Your task to perform on an android device: change timer sound Image 0: 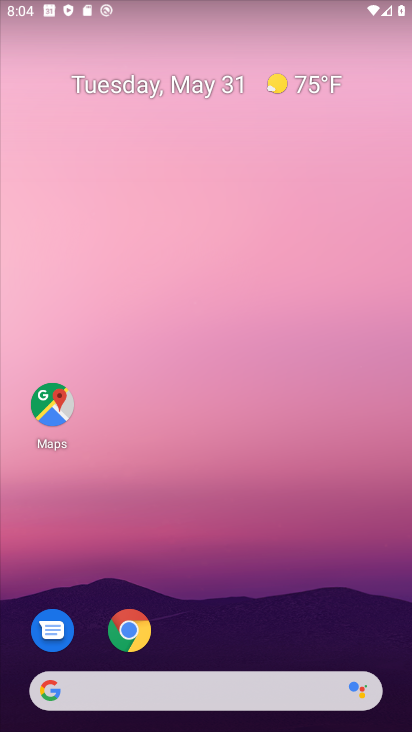
Step 0: drag from (275, 611) to (325, 211)
Your task to perform on an android device: change timer sound Image 1: 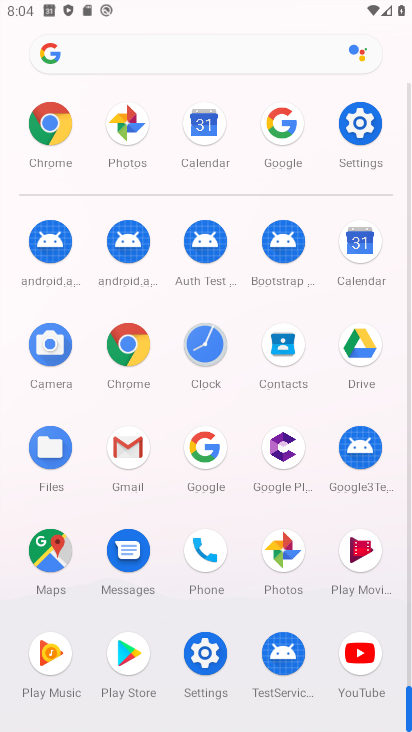
Step 1: click (207, 365)
Your task to perform on an android device: change timer sound Image 2: 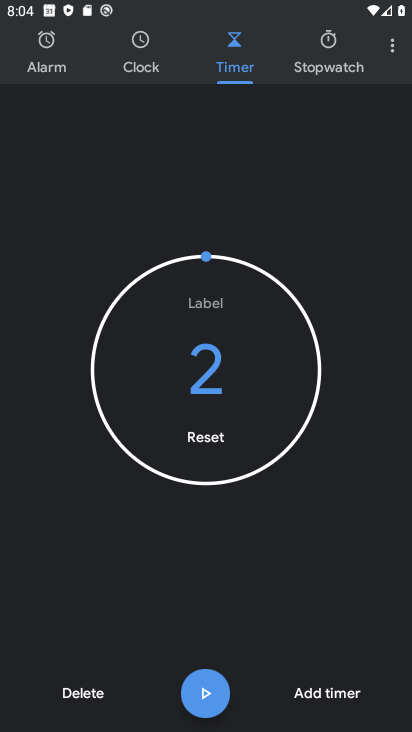
Step 2: click (392, 46)
Your task to perform on an android device: change timer sound Image 3: 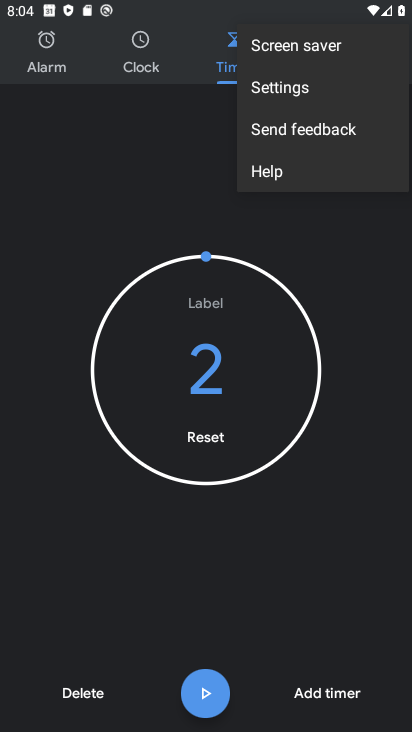
Step 3: click (288, 82)
Your task to perform on an android device: change timer sound Image 4: 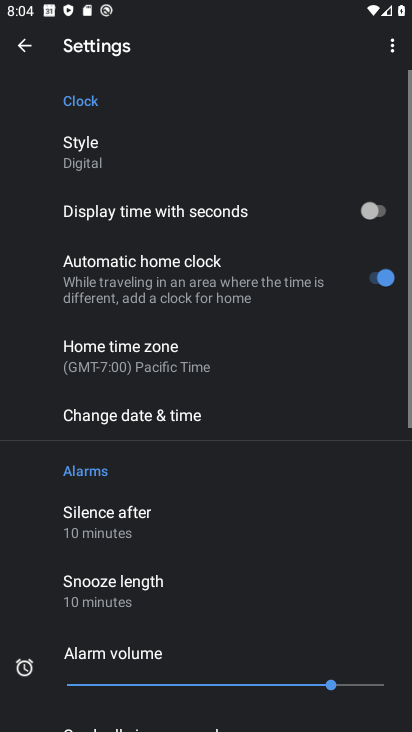
Step 4: drag from (175, 494) to (207, 208)
Your task to perform on an android device: change timer sound Image 5: 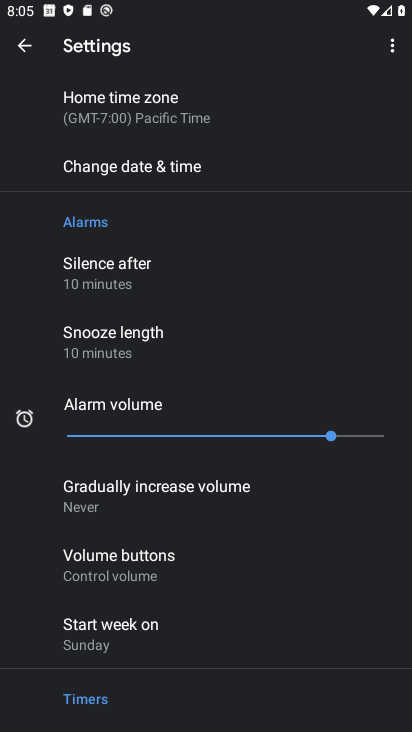
Step 5: drag from (154, 593) to (207, 327)
Your task to perform on an android device: change timer sound Image 6: 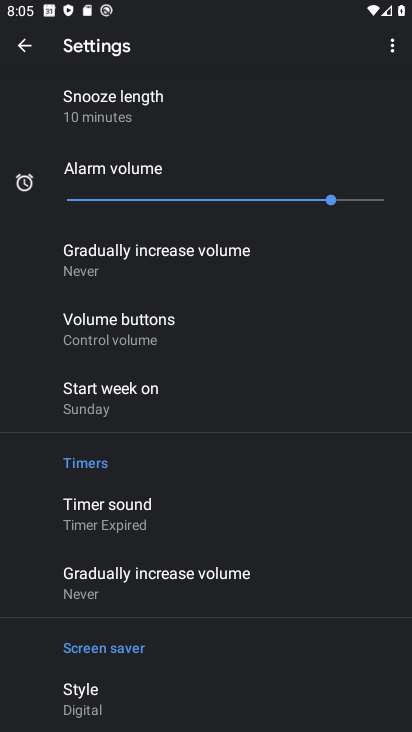
Step 6: click (147, 517)
Your task to perform on an android device: change timer sound Image 7: 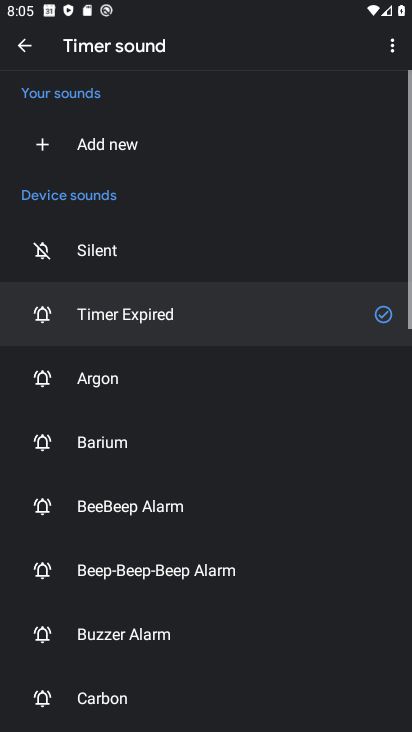
Step 7: click (108, 399)
Your task to perform on an android device: change timer sound Image 8: 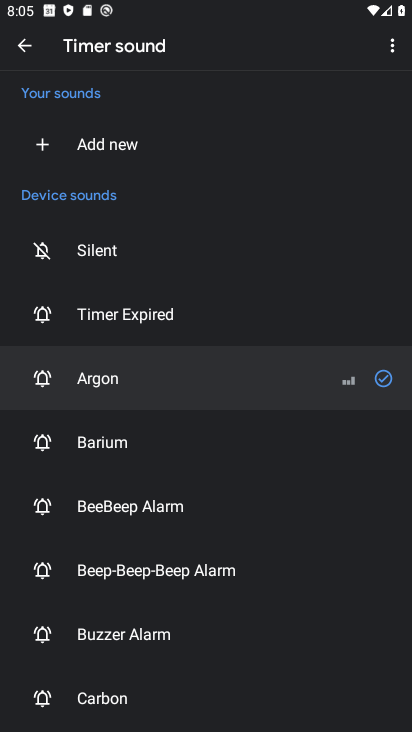
Step 8: task complete